Your task to perform on an android device: Open calendar and show me the second week of next month Image 0: 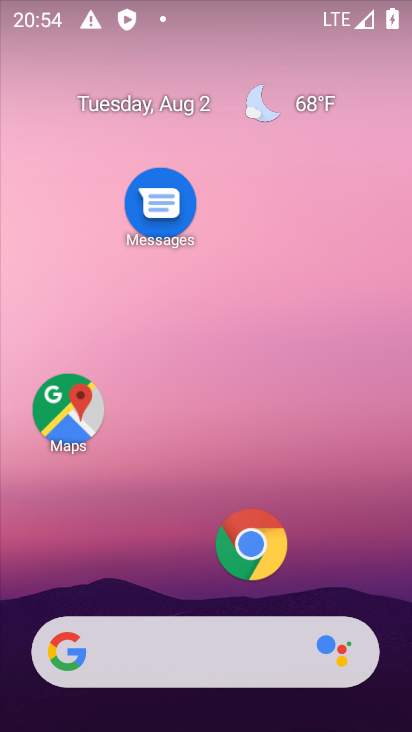
Step 0: drag from (172, 562) to (190, 117)
Your task to perform on an android device: Open calendar and show me the second week of next month Image 1: 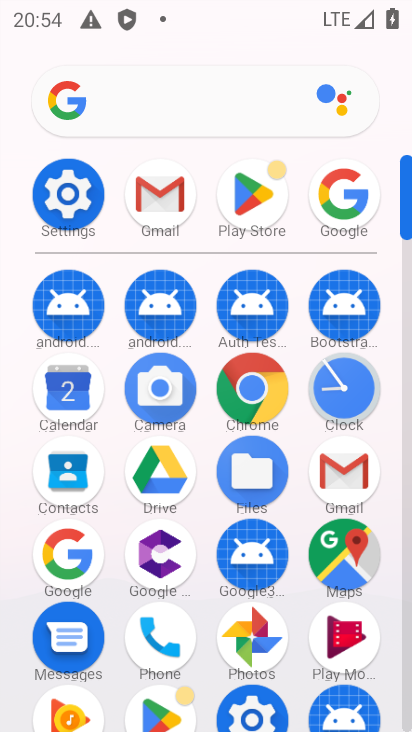
Step 1: click (58, 389)
Your task to perform on an android device: Open calendar and show me the second week of next month Image 2: 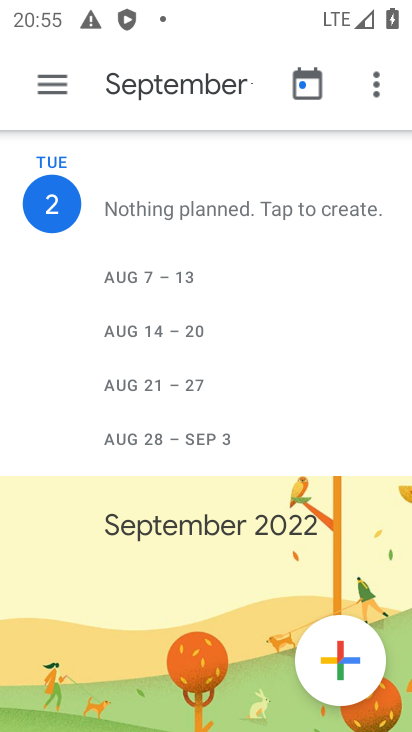
Step 2: drag from (188, 269) to (198, 629)
Your task to perform on an android device: Open calendar and show me the second week of next month Image 3: 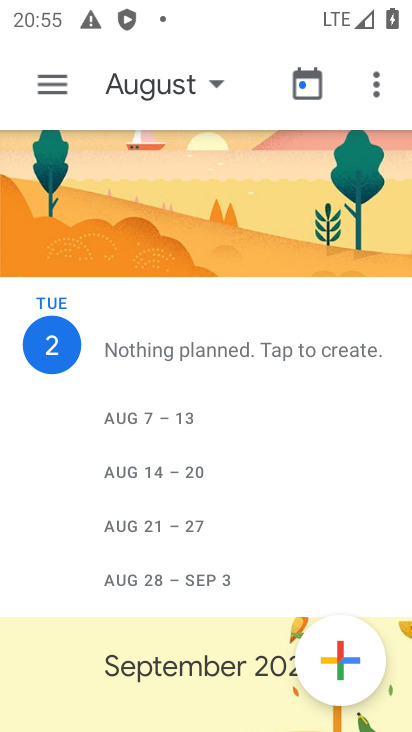
Step 3: click (207, 101)
Your task to perform on an android device: Open calendar and show me the second week of next month Image 4: 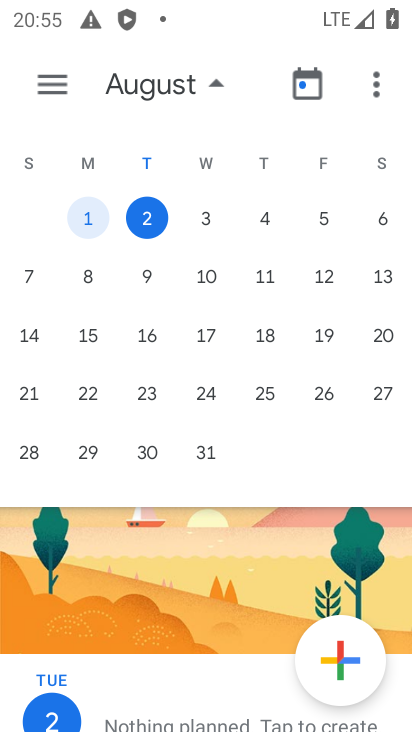
Step 4: drag from (342, 311) to (60, 315)
Your task to perform on an android device: Open calendar and show me the second week of next month Image 5: 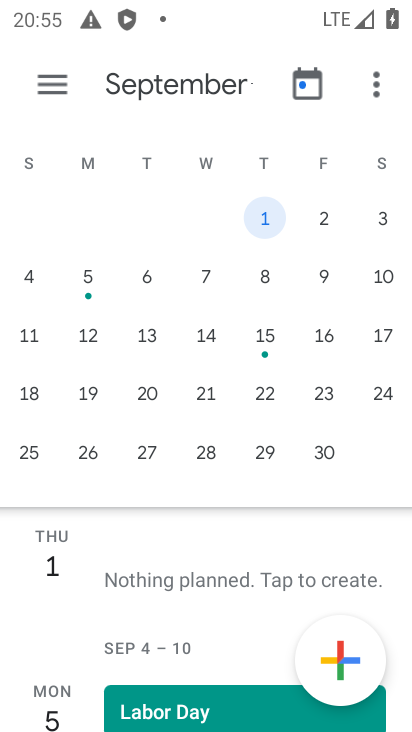
Step 5: click (42, 275)
Your task to perform on an android device: Open calendar and show me the second week of next month Image 6: 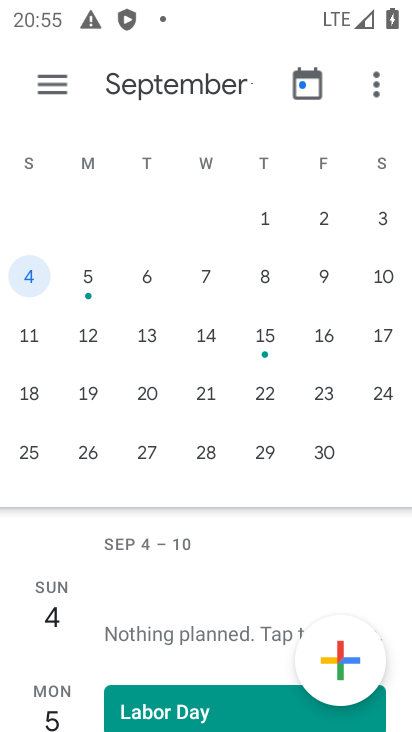
Step 6: click (38, 278)
Your task to perform on an android device: Open calendar and show me the second week of next month Image 7: 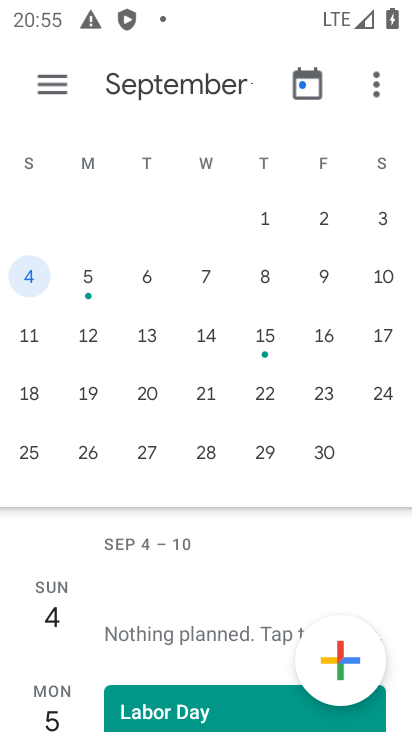
Step 7: click (55, 279)
Your task to perform on an android device: Open calendar and show me the second week of next month Image 8: 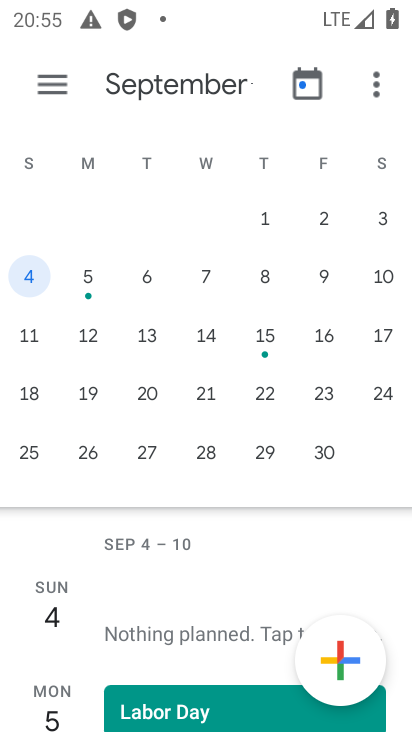
Step 8: click (86, 285)
Your task to perform on an android device: Open calendar and show me the second week of next month Image 9: 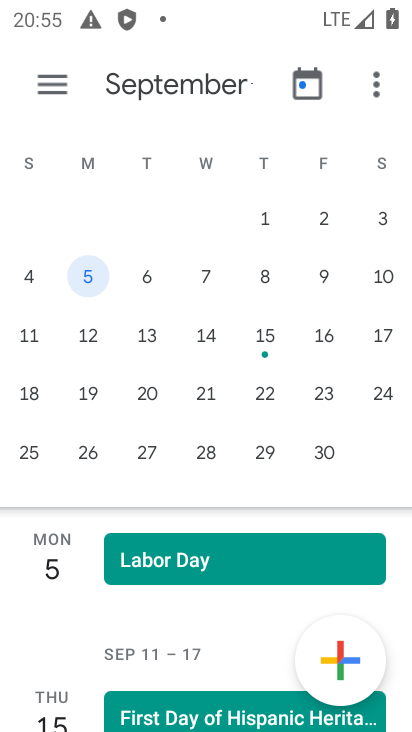
Step 9: task complete